Your task to perform on an android device: delete the emails in spam in the gmail app Image 0: 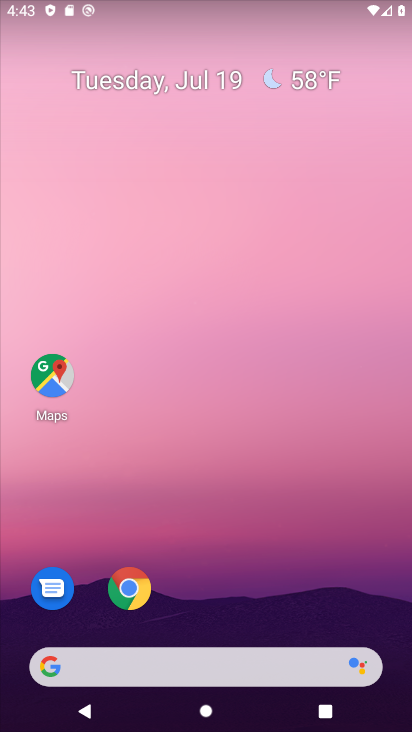
Step 0: drag from (260, 618) to (215, 141)
Your task to perform on an android device: delete the emails in spam in the gmail app Image 1: 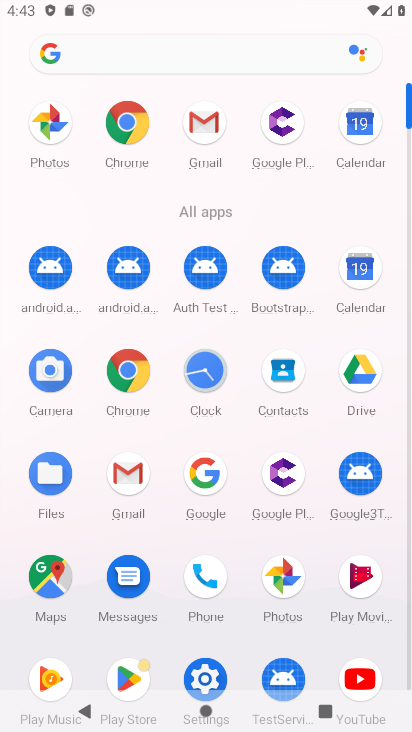
Step 1: click (197, 114)
Your task to perform on an android device: delete the emails in spam in the gmail app Image 2: 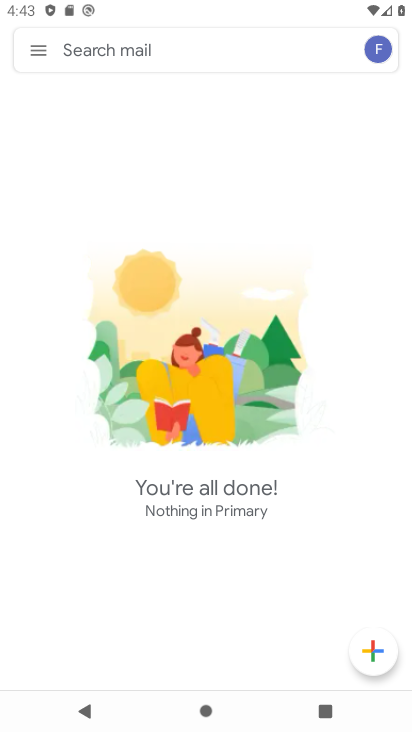
Step 2: click (44, 43)
Your task to perform on an android device: delete the emails in spam in the gmail app Image 3: 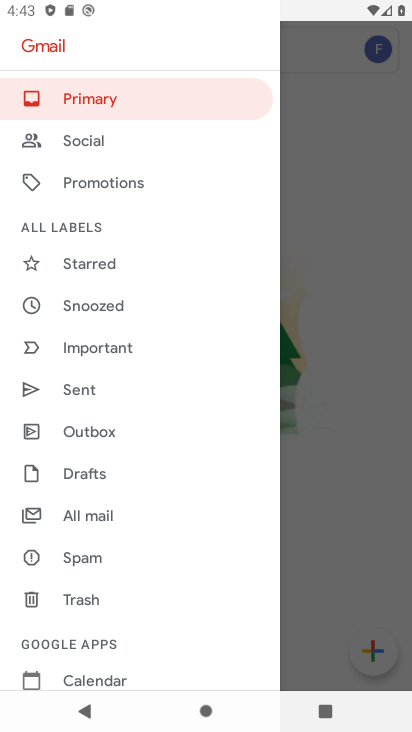
Step 3: click (89, 564)
Your task to perform on an android device: delete the emails in spam in the gmail app Image 4: 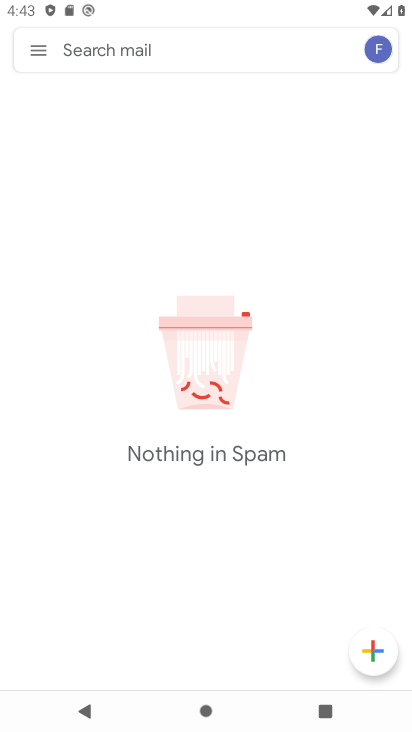
Step 4: task complete